Your task to perform on an android device: turn off priority inbox in the gmail app Image 0: 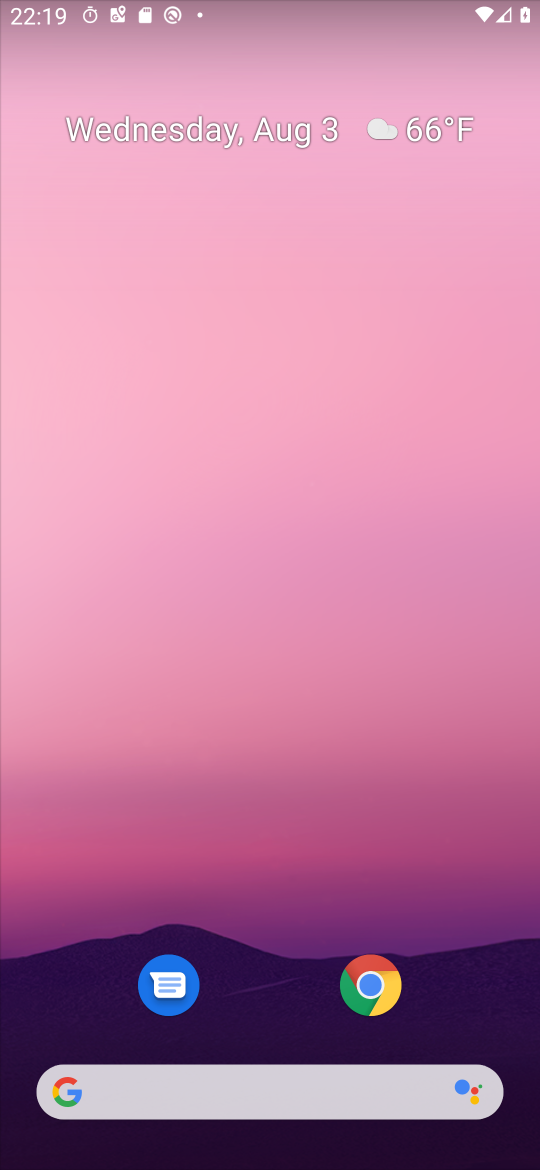
Step 0: drag from (286, 979) to (276, 292)
Your task to perform on an android device: turn off priority inbox in the gmail app Image 1: 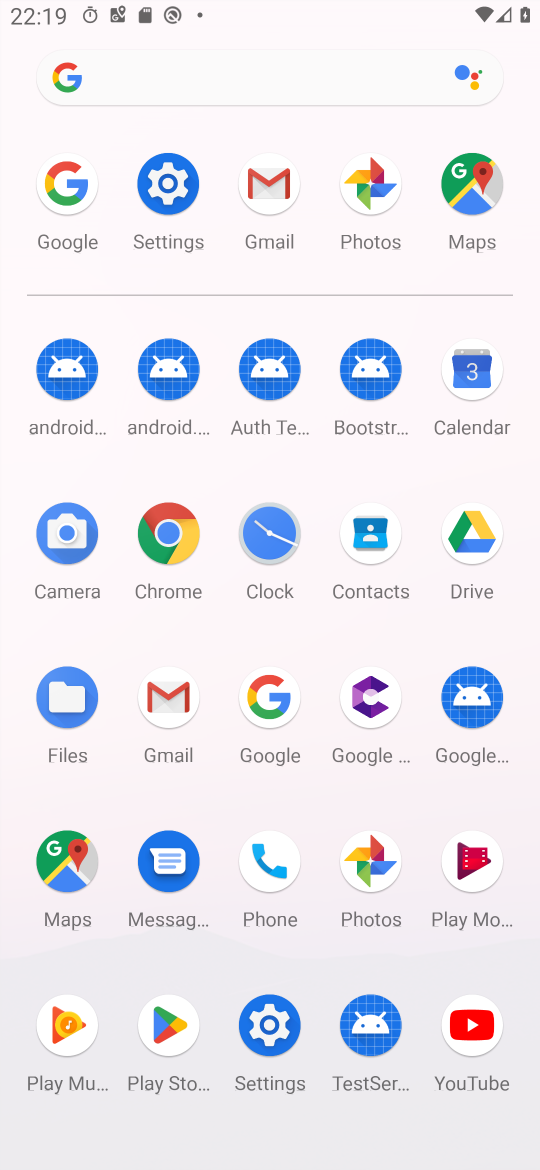
Step 1: click (254, 189)
Your task to perform on an android device: turn off priority inbox in the gmail app Image 2: 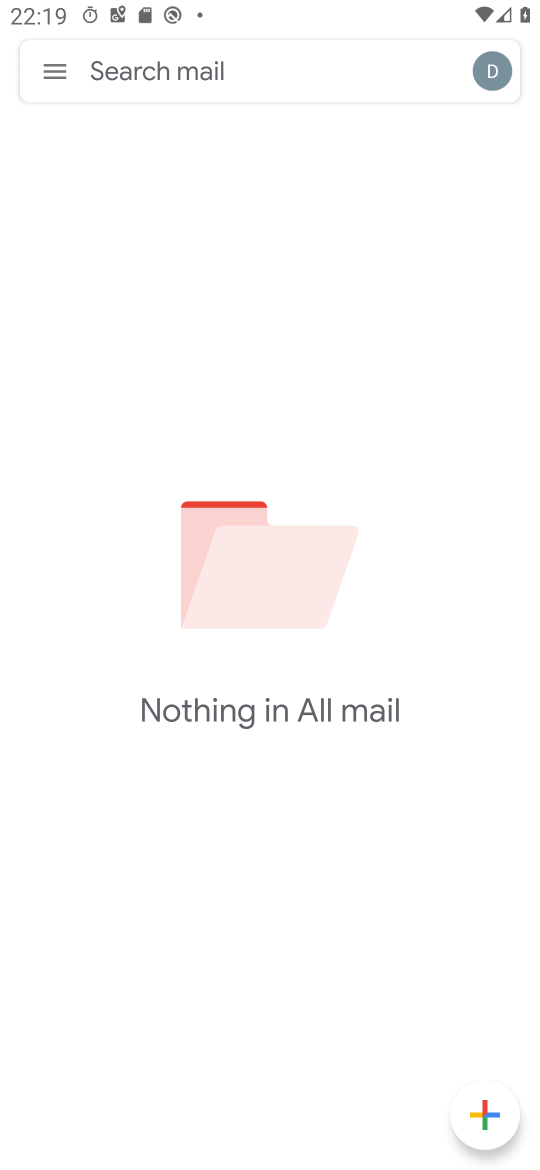
Step 2: click (60, 70)
Your task to perform on an android device: turn off priority inbox in the gmail app Image 3: 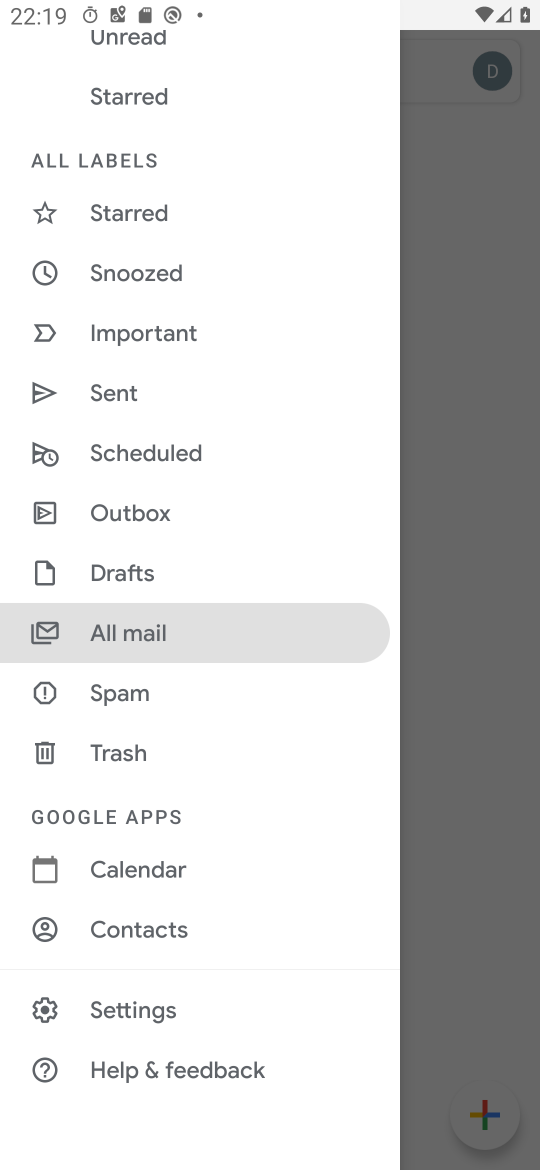
Step 3: click (129, 998)
Your task to perform on an android device: turn off priority inbox in the gmail app Image 4: 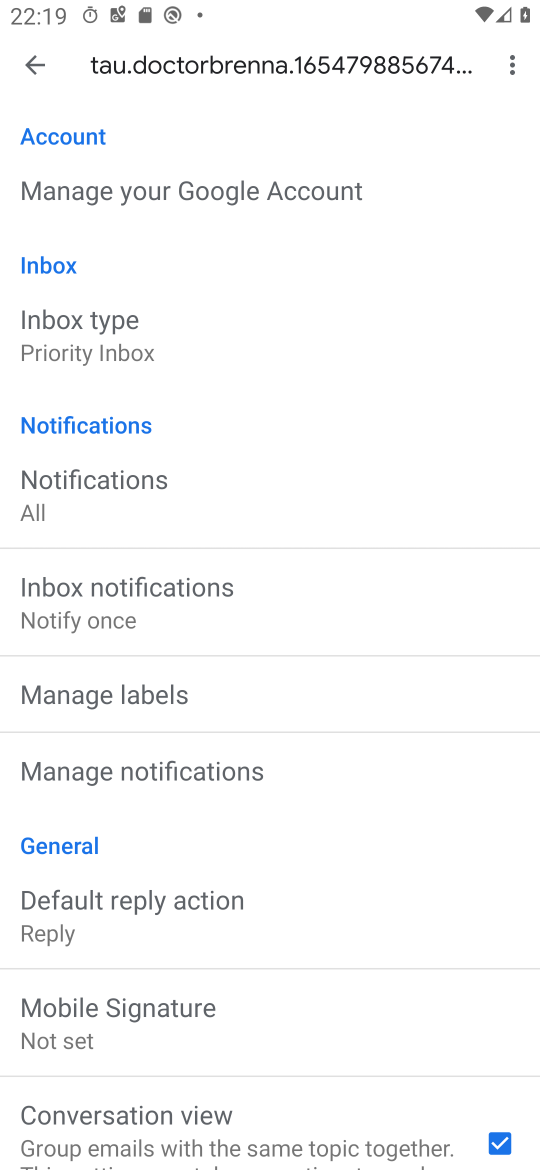
Step 4: click (158, 349)
Your task to perform on an android device: turn off priority inbox in the gmail app Image 5: 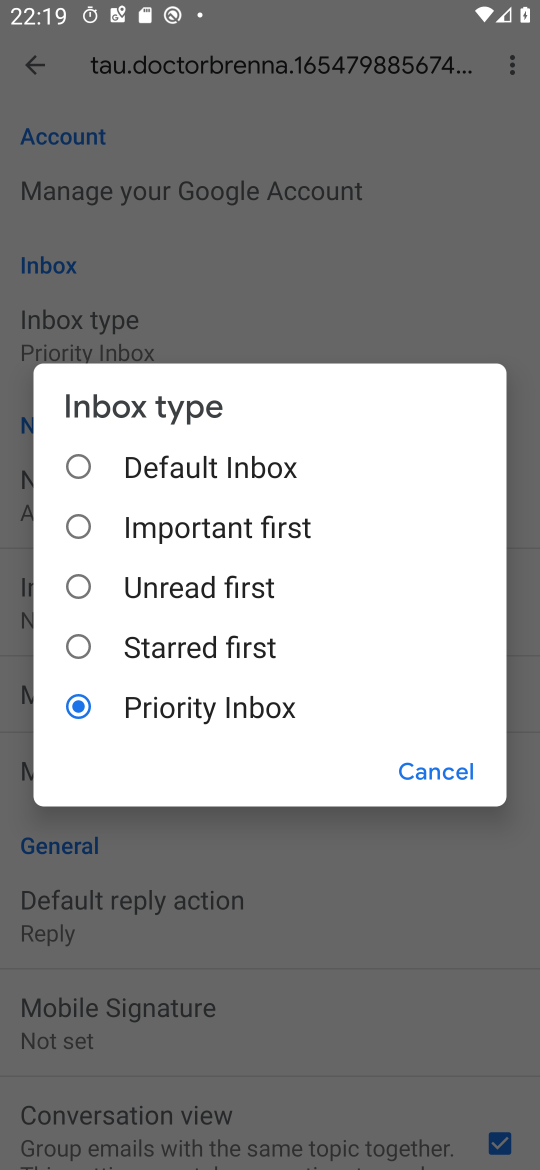
Step 5: click (154, 475)
Your task to perform on an android device: turn off priority inbox in the gmail app Image 6: 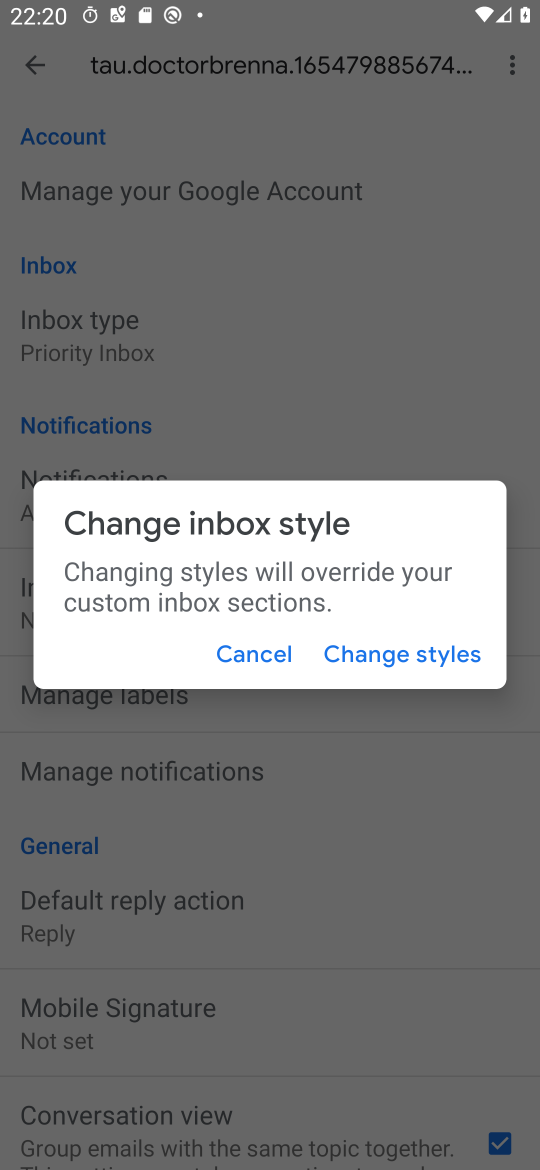
Step 6: click (410, 650)
Your task to perform on an android device: turn off priority inbox in the gmail app Image 7: 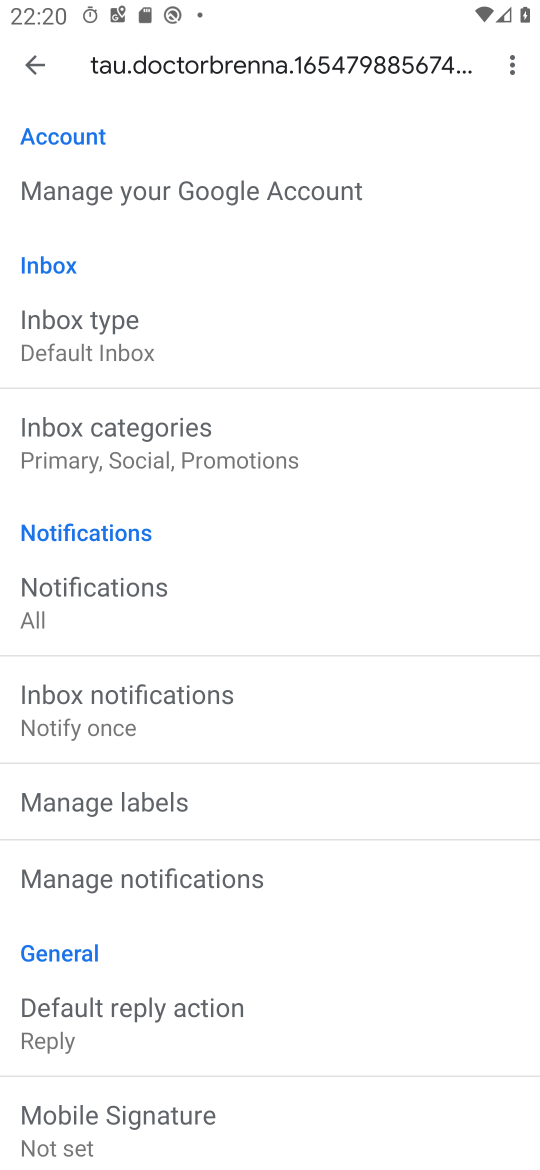
Step 7: task complete